Your task to perform on an android device: add a contact in the contacts app Image 0: 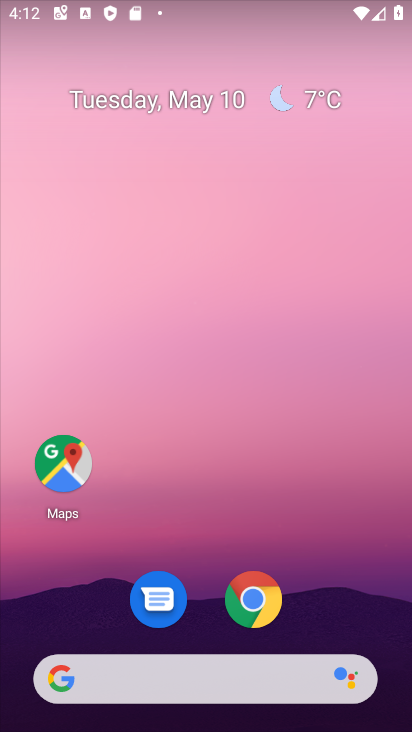
Step 0: click (319, 118)
Your task to perform on an android device: add a contact in the contacts app Image 1: 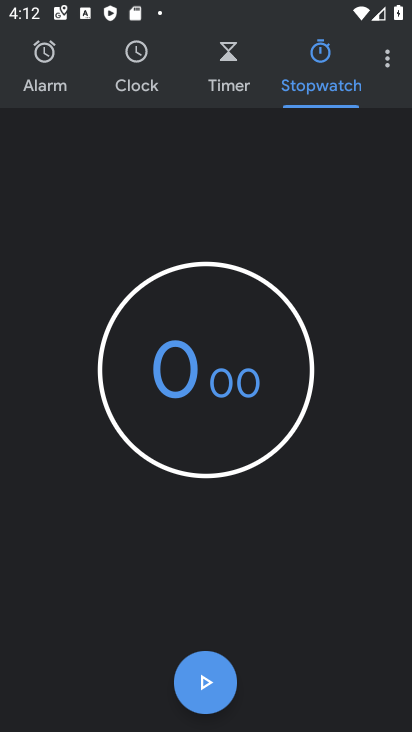
Step 1: press home button
Your task to perform on an android device: add a contact in the contacts app Image 2: 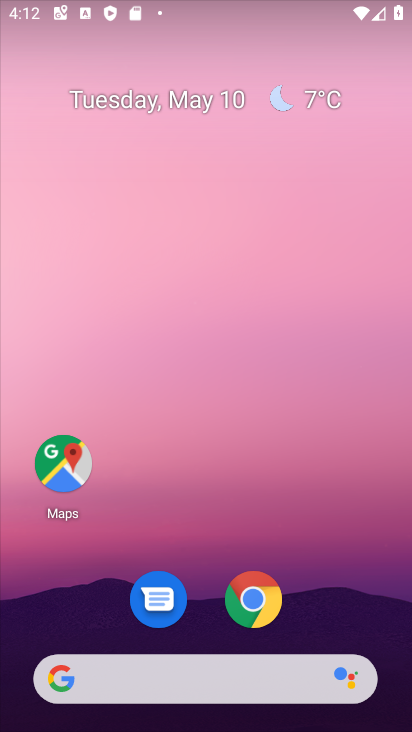
Step 2: drag from (238, 601) to (274, 228)
Your task to perform on an android device: add a contact in the contacts app Image 3: 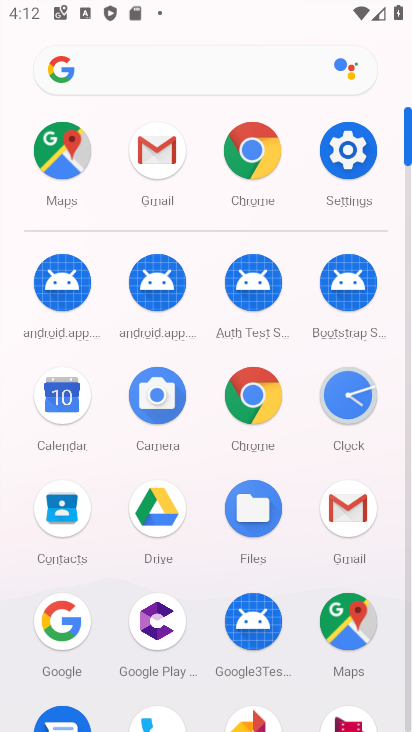
Step 3: click (70, 531)
Your task to perform on an android device: add a contact in the contacts app Image 4: 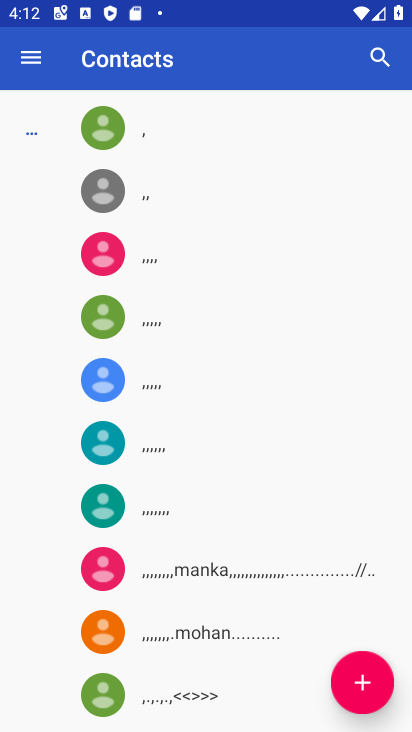
Step 4: click (366, 672)
Your task to perform on an android device: add a contact in the contacts app Image 5: 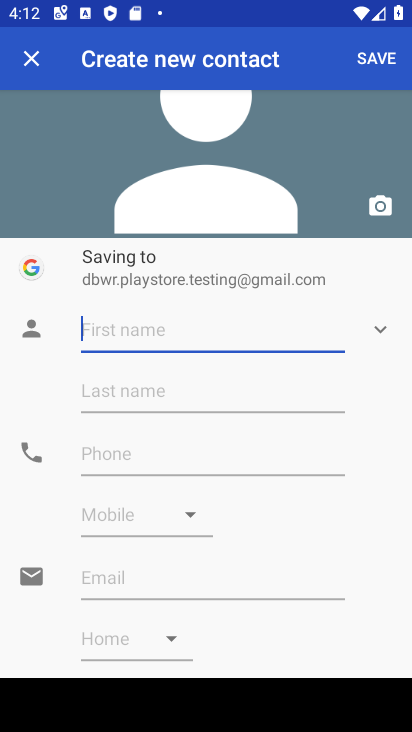
Step 5: click (208, 323)
Your task to perform on an android device: add a contact in the contacts app Image 6: 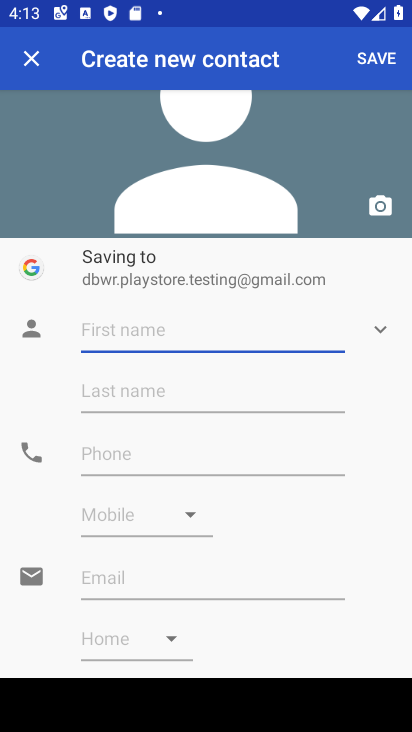
Step 6: type "trshw"
Your task to perform on an android device: add a contact in the contacts app Image 7: 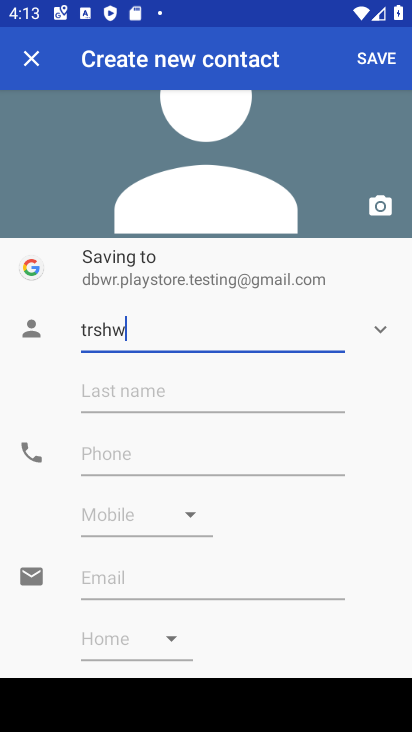
Step 7: type ""
Your task to perform on an android device: add a contact in the contacts app Image 8: 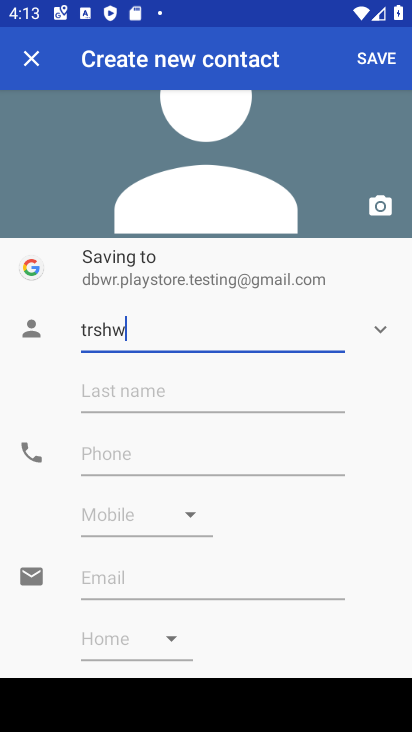
Step 8: click (164, 468)
Your task to perform on an android device: add a contact in the contacts app Image 9: 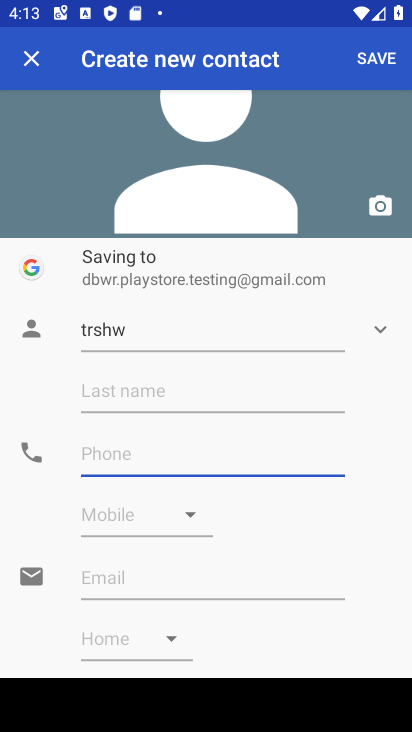
Step 9: type "87758"
Your task to perform on an android device: add a contact in the contacts app Image 10: 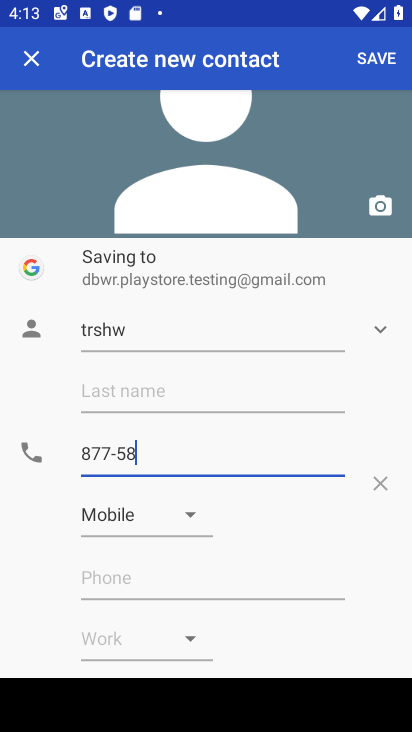
Step 10: click (383, 63)
Your task to perform on an android device: add a contact in the contacts app Image 11: 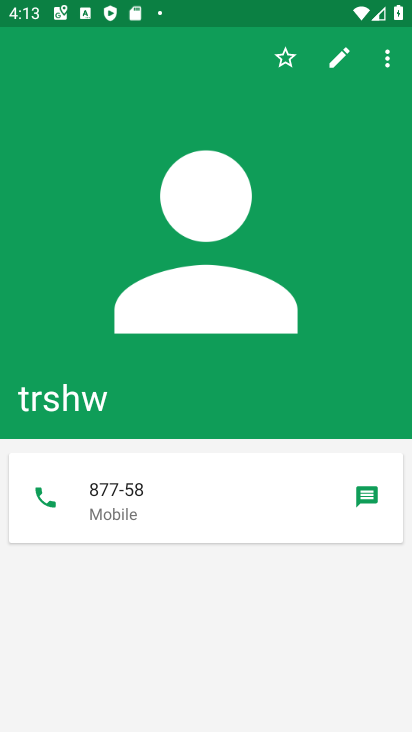
Step 11: task complete